Your task to perform on an android device: Open Chrome and go to the settings page Image 0: 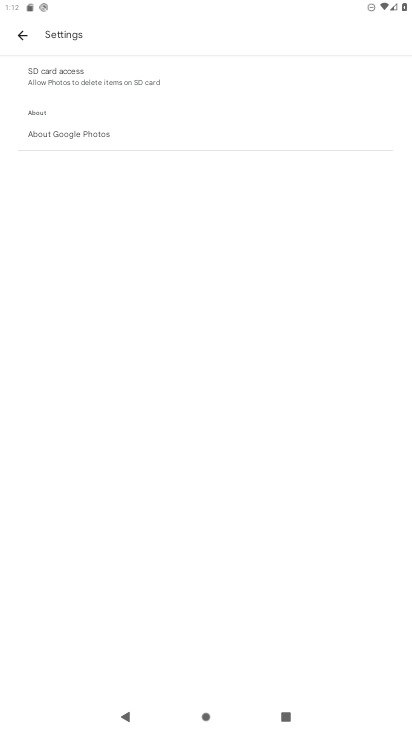
Step 0: press home button
Your task to perform on an android device: Open Chrome and go to the settings page Image 1: 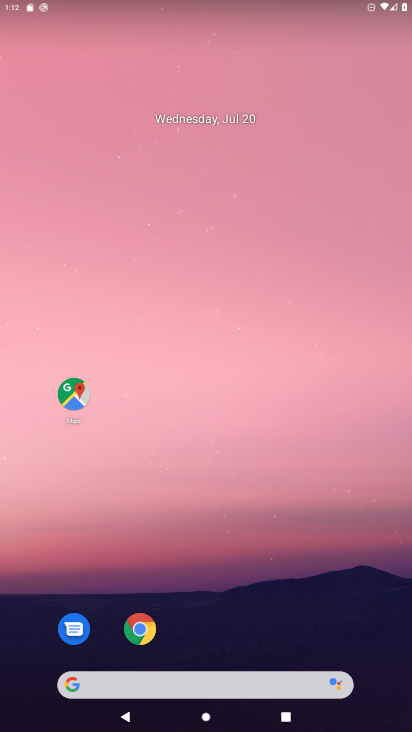
Step 1: click (135, 636)
Your task to perform on an android device: Open Chrome and go to the settings page Image 2: 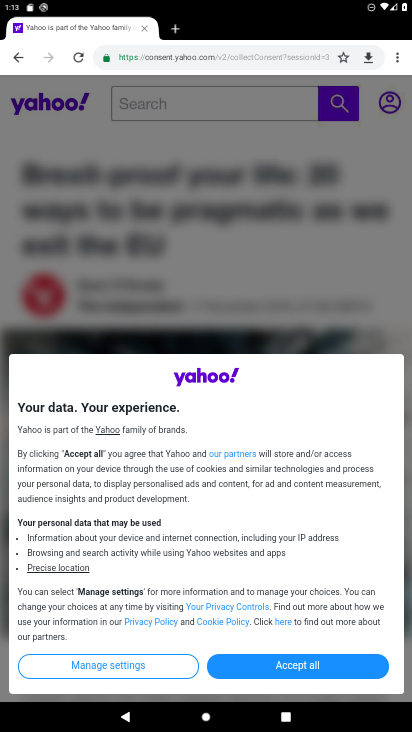
Step 2: click (393, 61)
Your task to perform on an android device: Open Chrome and go to the settings page Image 3: 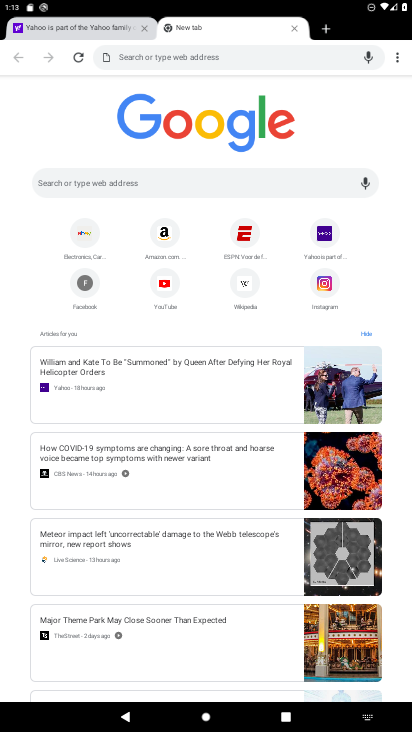
Step 3: click (397, 56)
Your task to perform on an android device: Open Chrome and go to the settings page Image 4: 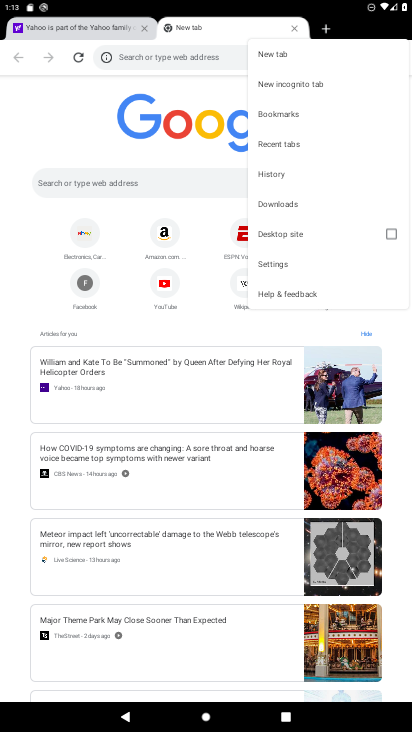
Step 4: click (273, 263)
Your task to perform on an android device: Open Chrome and go to the settings page Image 5: 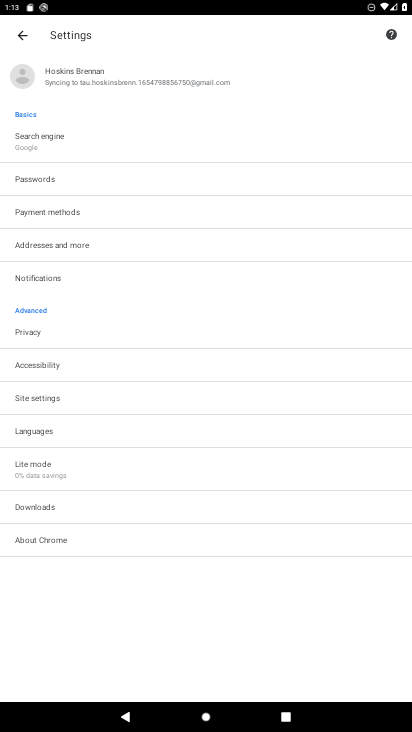
Step 5: task complete